Your task to perform on an android device: Open network settings Image 0: 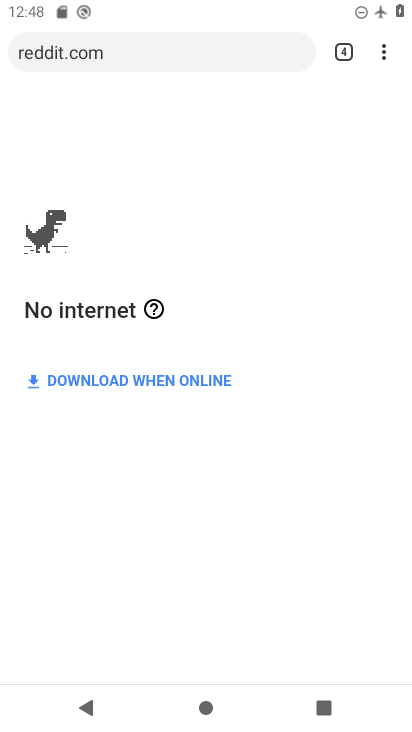
Step 0: press home button
Your task to perform on an android device: Open network settings Image 1: 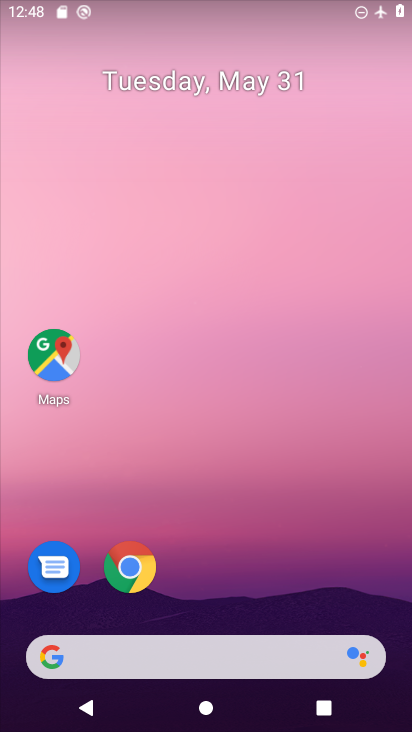
Step 1: drag from (235, 599) to (216, 76)
Your task to perform on an android device: Open network settings Image 2: 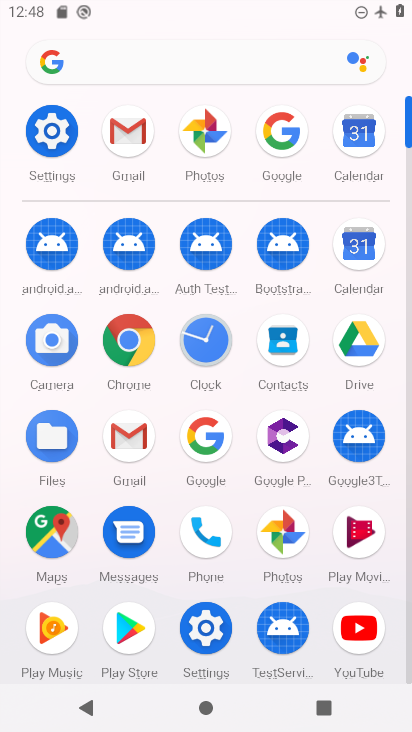
Step 2: click (68, 134)
Your task to perform on an android device: Open network settings Image 3: 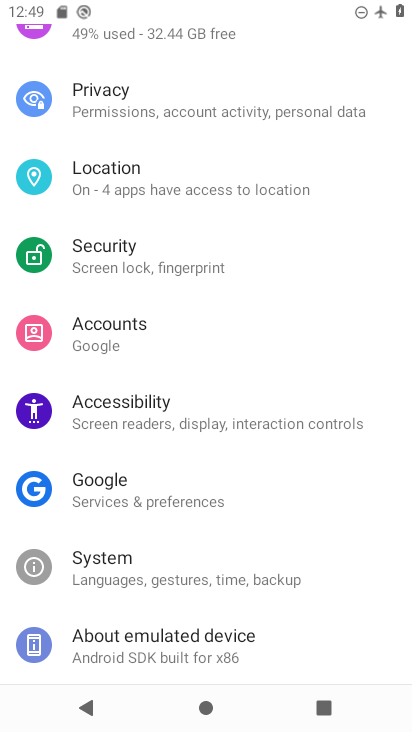
Step 3: drag from (173, 184) to (178, 626)
Your task to perform on an android device: Open network settings Image 4: 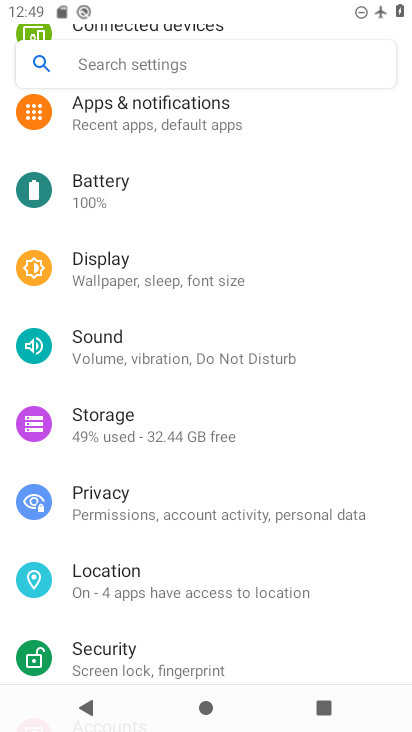
Step 4: drag from (182, 221) to (221, 557)
Your task to perform on an android device: Open network settings Image 5: 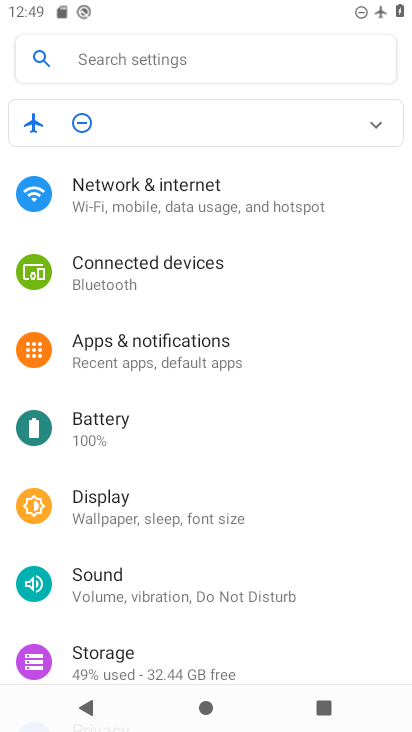
Step 5: click (237, 208)
Your task to perform on an android device: Open network settings Image 6: 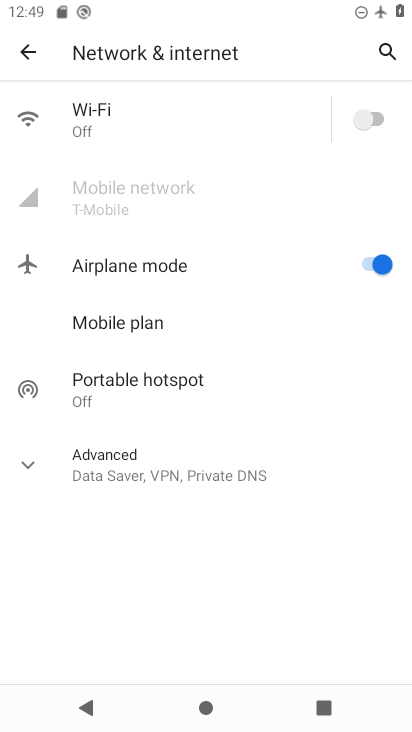
Step 6: task complete